Your task to perform on an android device: empty trash in google photos Image 0: 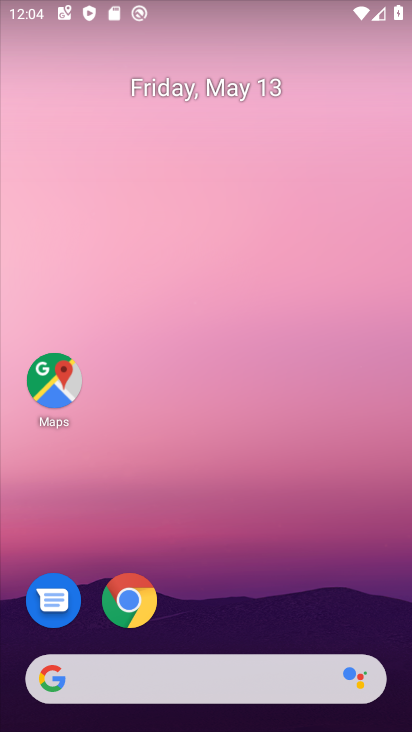
Step 0: drag from (260, 569) to (271, 158)
Your task to perform on an android device: empty trash in google photos Image 1: 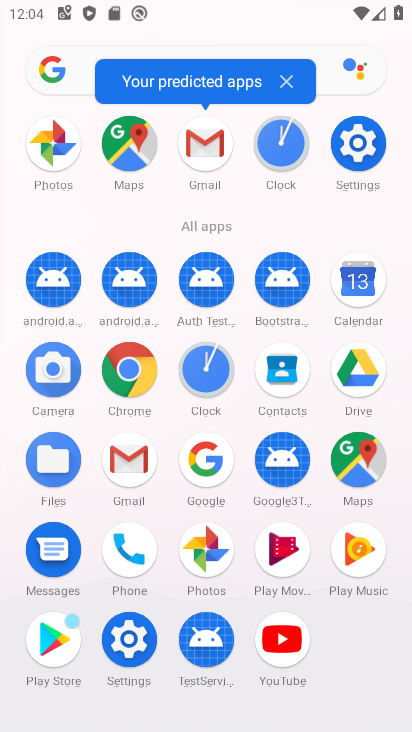
Step 1: click (67, 154)
Your task to perform on an android device: empty trash in google photos Image 2: 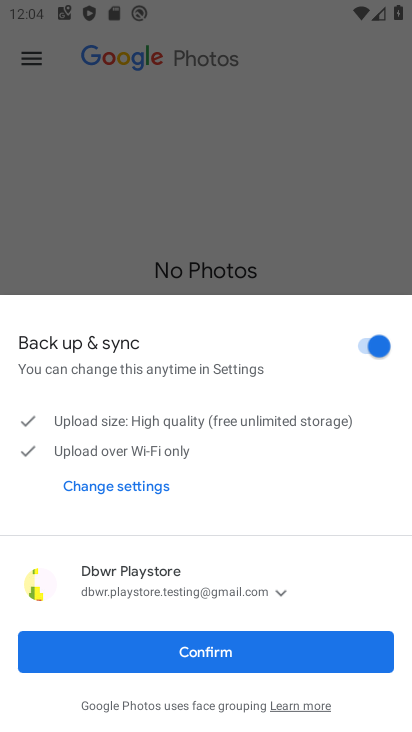
Step 2: click (201, 656)
Your task to perform on an android device: empty trash in google photos Image 3: 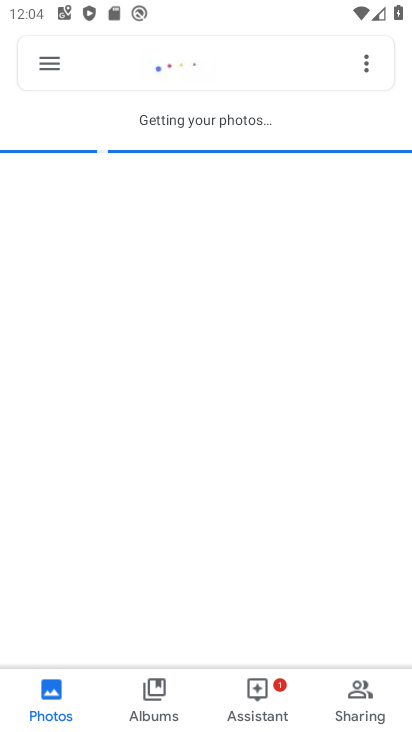
Step 3: click (47, 71)
Your task to perform on an android device: empty trash in google photos Image 4: 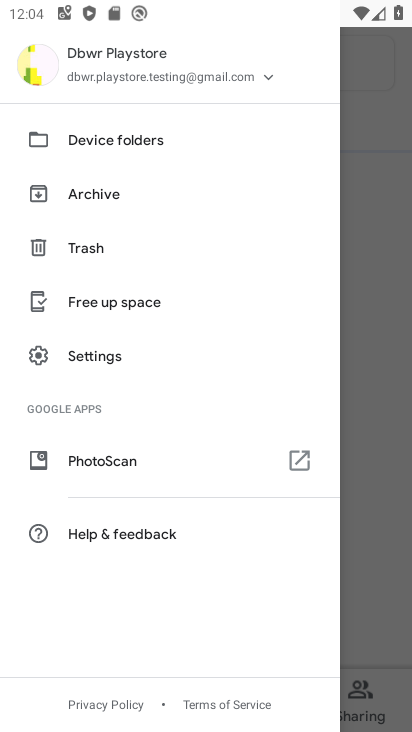
Step 4: click (122, 245)
Your task to perform on an android device: empty trash in google photos Image 5: 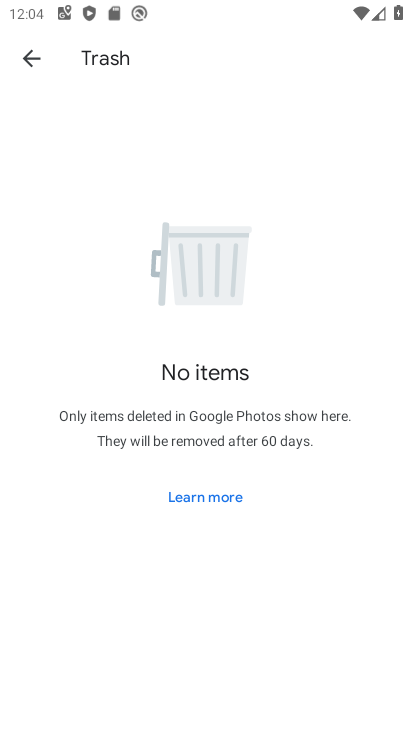
Step 5: task complete